Your task to perform on an android device: Go to Maps Image 0: 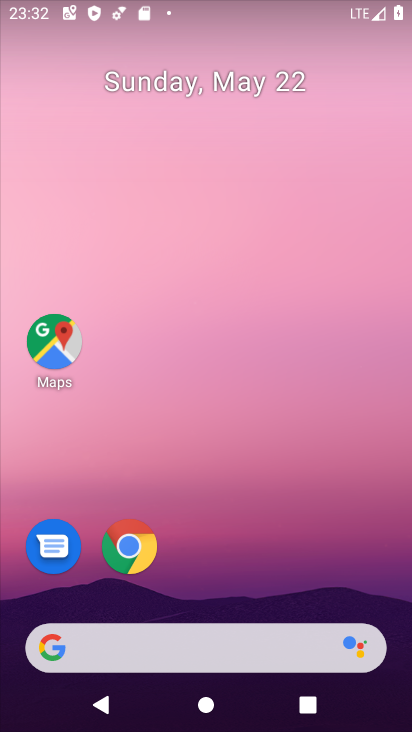
Step 0: drag from (197, 604) to (335, 203)
Your task to perform on an android device: Go to Maps Image 1: 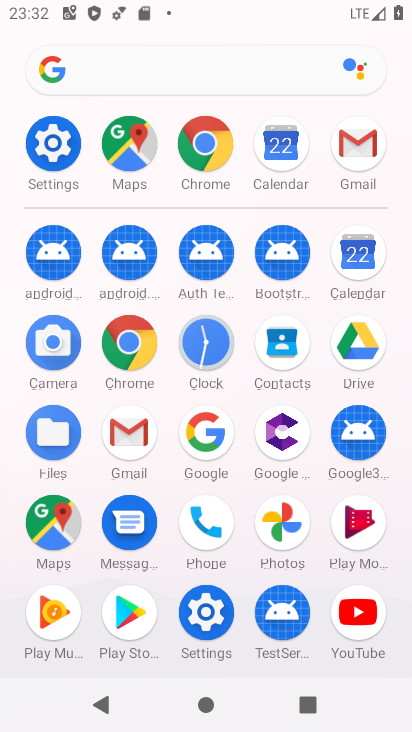
Step 1: click (48, 521)
Your task to perform on an android device: Go to Maps Image 2: 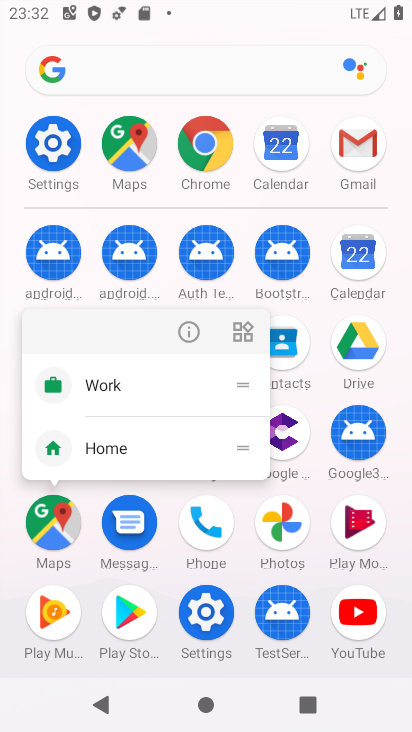
Step 2: click (181, 334)
Your task to perform on an android device: Go to Maps Image 3: 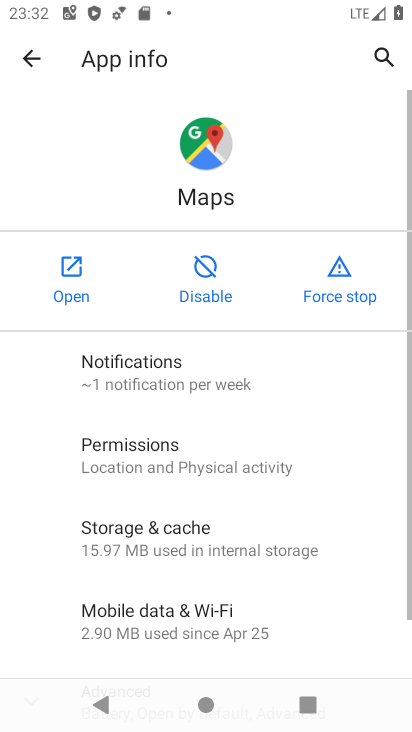
Step 3: click (65, 287)
Your task to perform on an android device: Go to Maps Image 4: 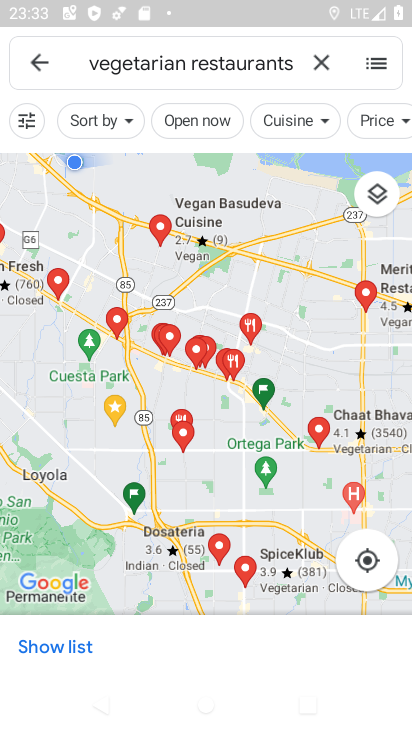
Step 4: task complete